Your task to perform on an android device: Open eBay Image 0: 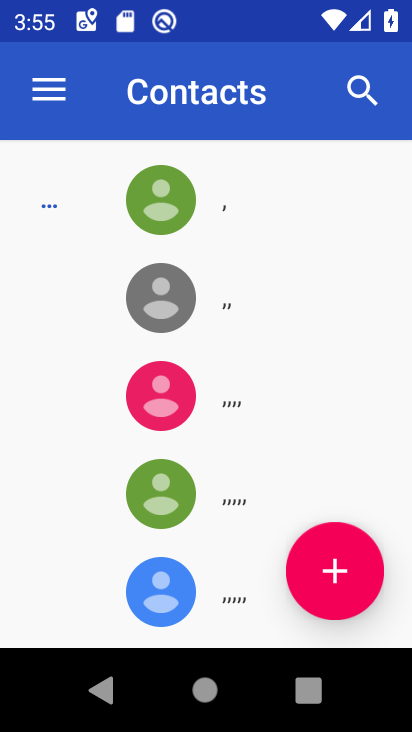
Step 0: press home button
Your task to perform on an android device: Open eBay Image 1: 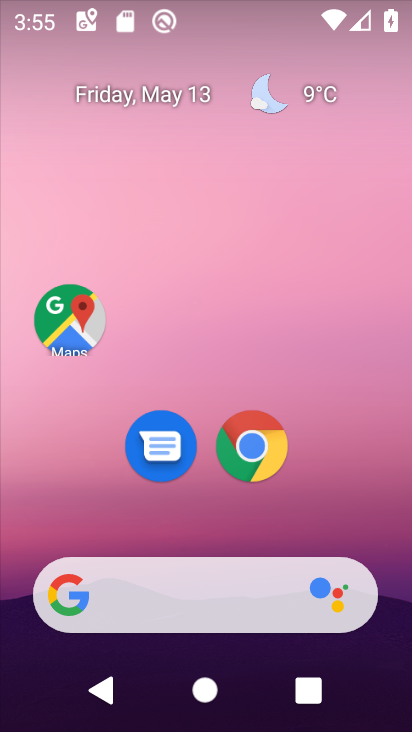
Step 1: drag from (242, 499) to (313, 13)
Your task to perform on an android device: Open eBay Image 2: 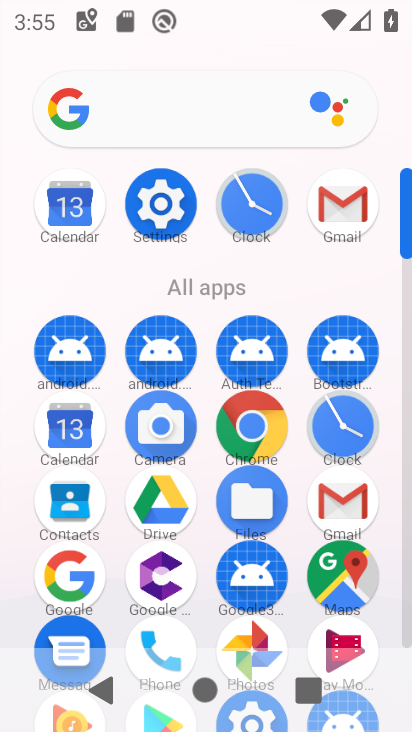
Step 2: click (257, 433)
Your task to perform on an android device: Open eBay Image 3: 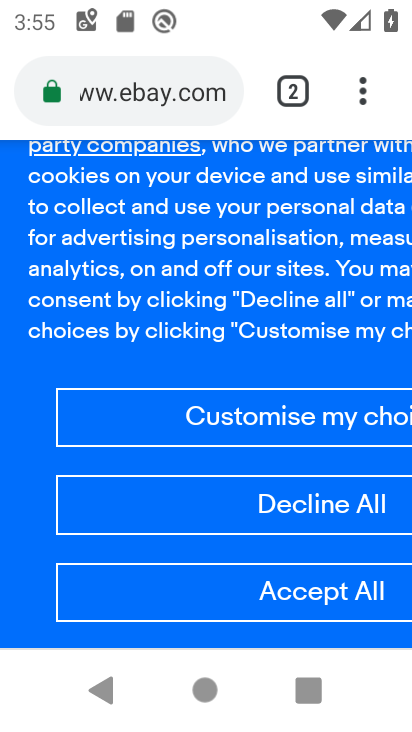
Step 3: task complete